Your task to perform on an android device: Open wifi settings Image 0: 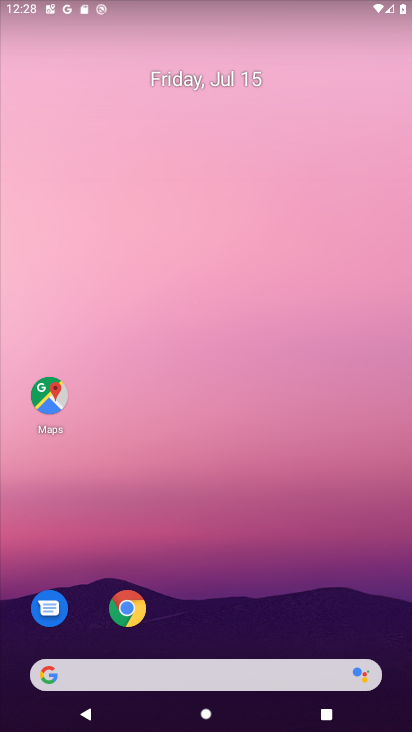
Step 0: drag from (236, 535) to (183, 117)
Your task to perform on an android device: Open wifi settings Image 1: 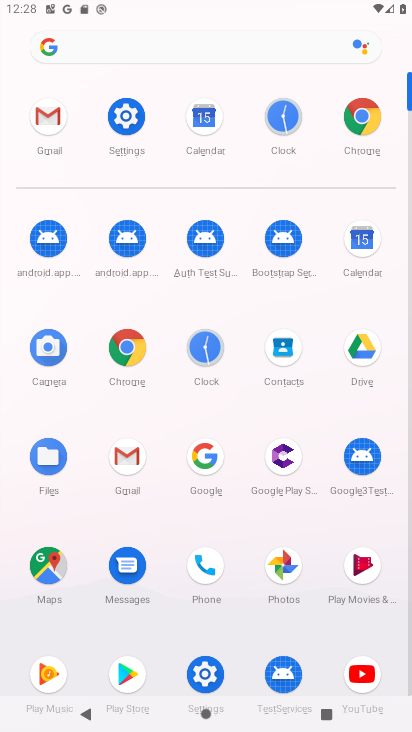
Step 1: click (124, 120)
Your task to perform on an android device: Open wifi settings Image 2: 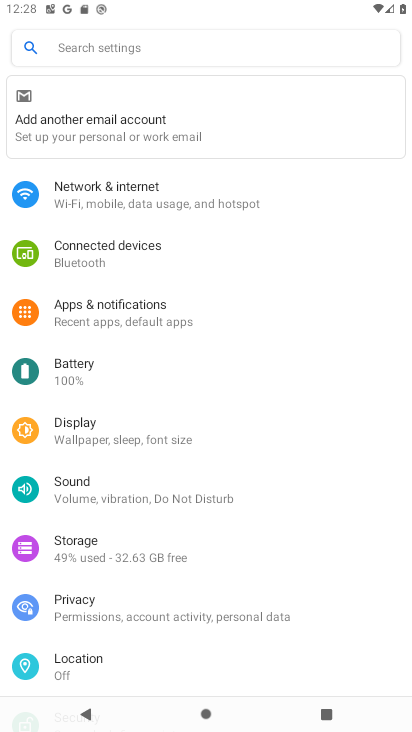
Step 2: click (107, 188)
Your task to perform on an android device: Open wifi settings Image 3: 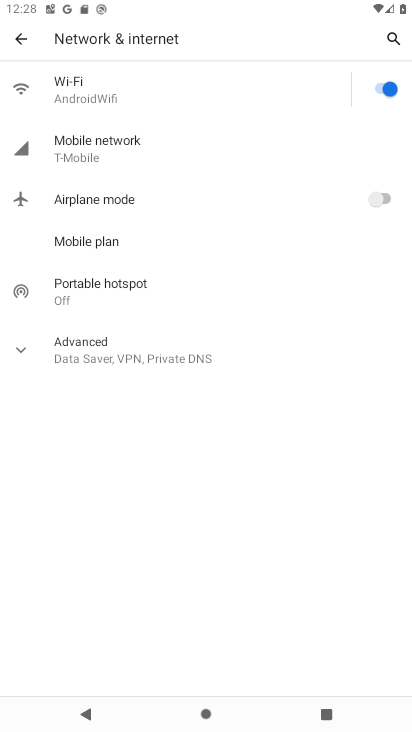
Step 3: click (129, 92)
Your task to perform on an android device: Open wifi settings Image 4: 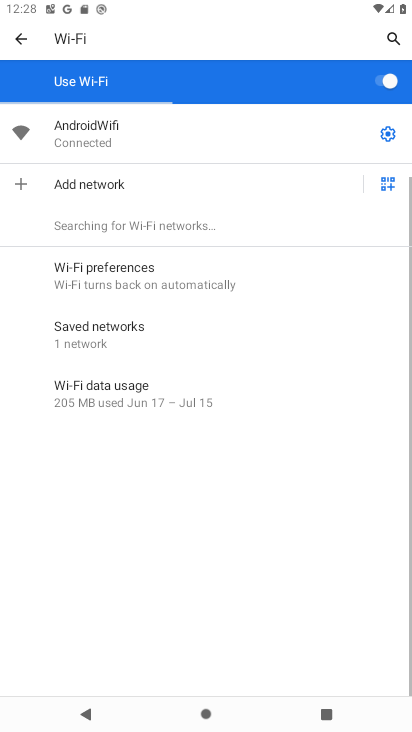
Step 4: task complete